Your task to perform on an android device: change your default location settings in chrome Image 0: 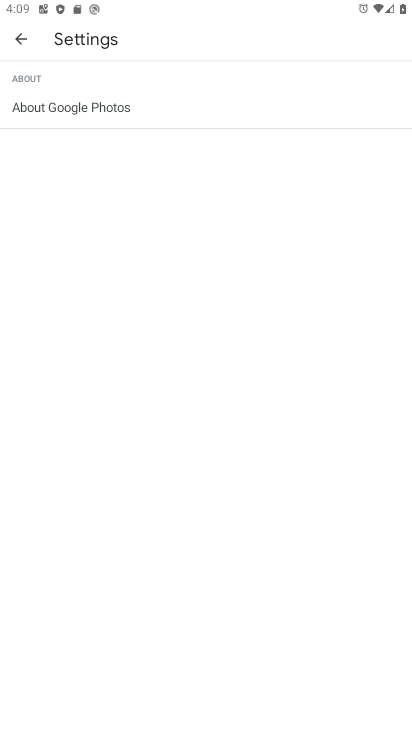
Step 0: press home button
Your task to perform on an android device: change your default location settings in chrome Image 1: 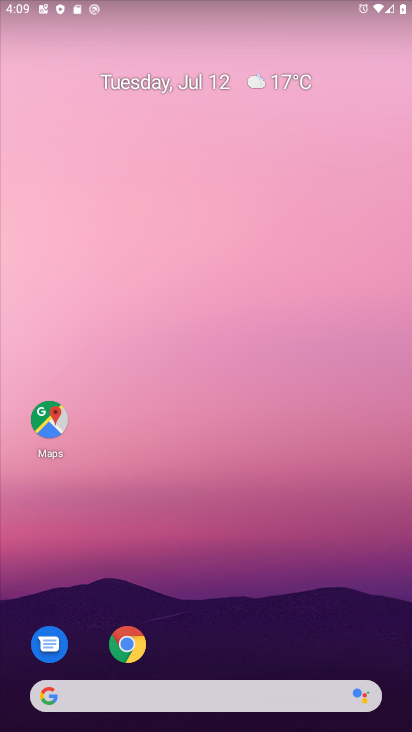
Step 1: drag from (261, 639) to (301, 24)
Your task to perform on an android device: change your default location settings in chrome Image 2: 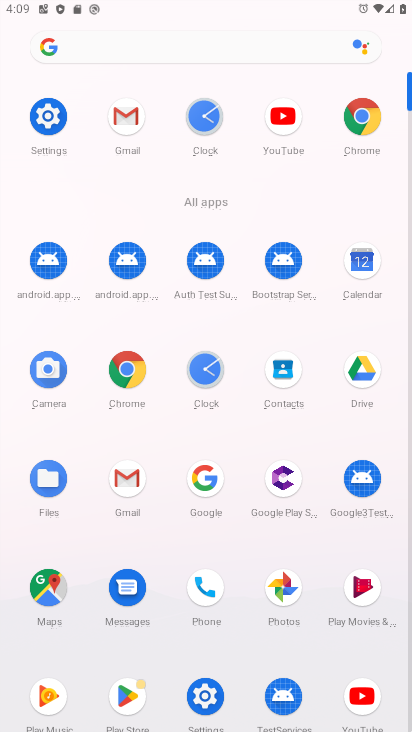
Step 2: click (369, 134)
Your task to perform on an android device: change your default location settings in chrome Image 3: 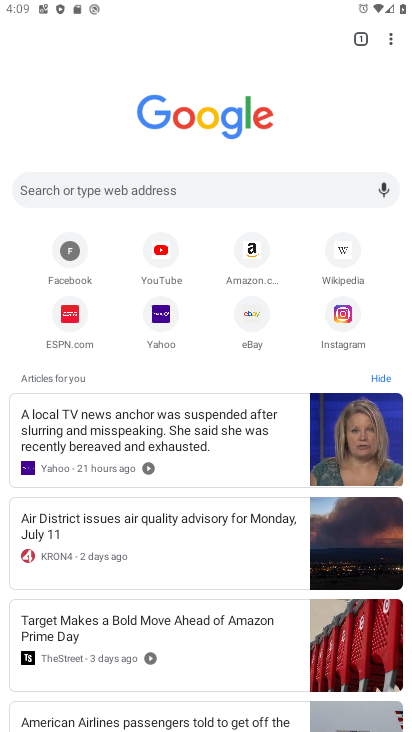
Step 3: click (388, 43)
Your task to perform on an android device: change your default location settings in chrome Image 4: 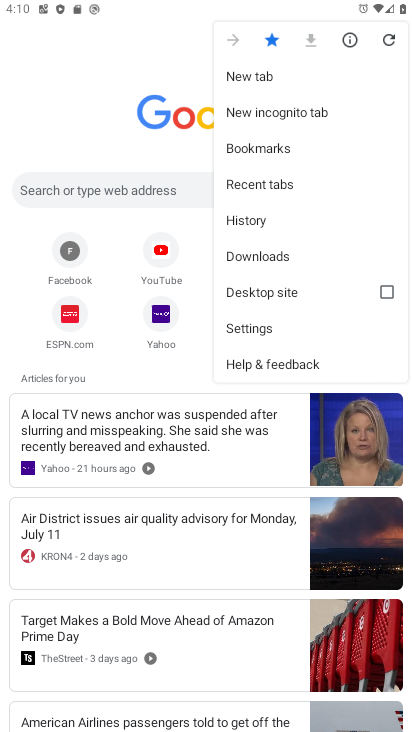
Step 4: click (288, 327)
Your task to perform on an android device: change your default location settings in chrome Image 5: 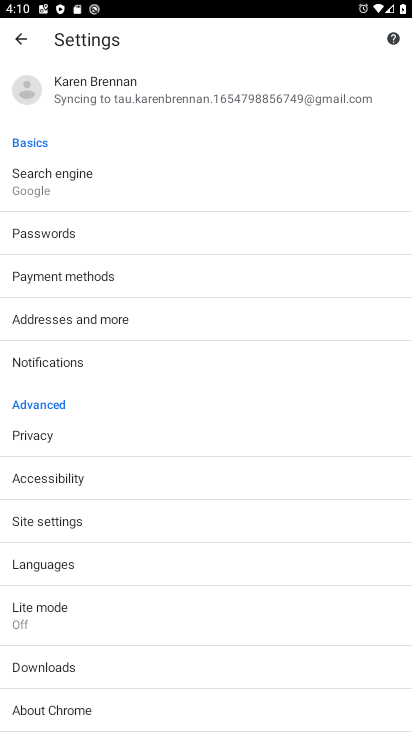
Step 5: click (226, 182)
Your task to perform on an android device: change your default location settings in chrome Image 6: 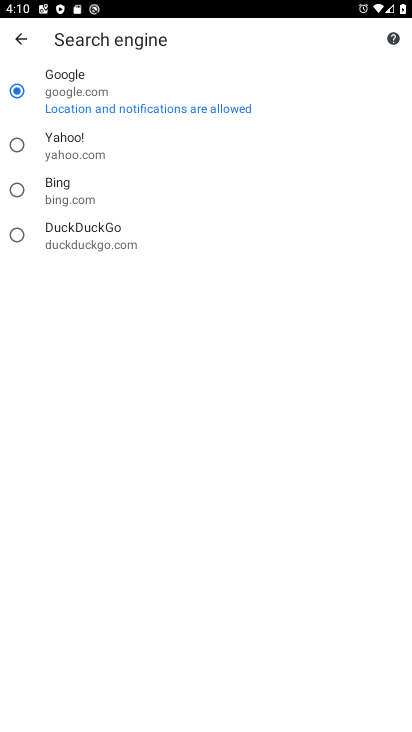
Step 6: click (117, 147)
Your task to perform on an android device: change your default location settings in chrome Image 7: 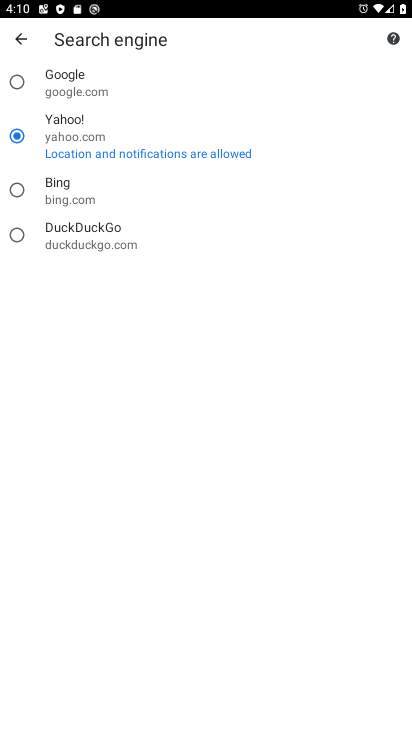
Step 7: task complete